Your task to perform on an android device: Show me popular games on the Play Store Image 0: 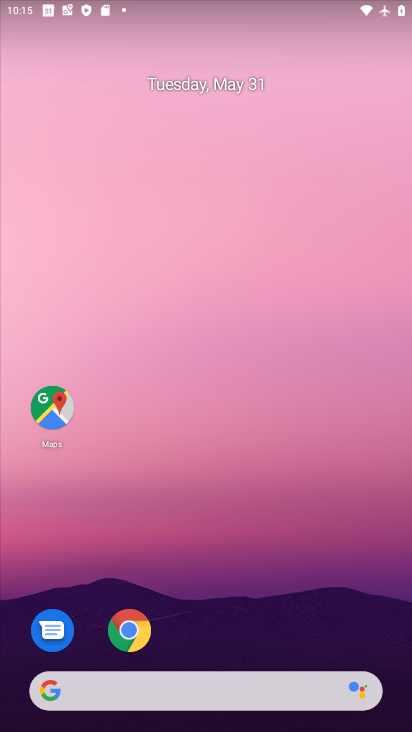
Step 0: drag from (254, 608) to (227, 240)
Your task to perform on an android device: Show me popular games on the Play Store Image 1: 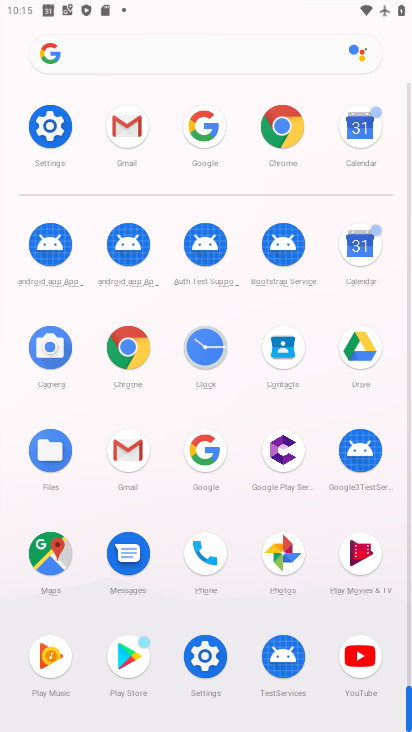
Step 1: drag from (285, 545) to (149, 624)
Your task to perform on an android device: Show me popular games on the Play Store Image 2: 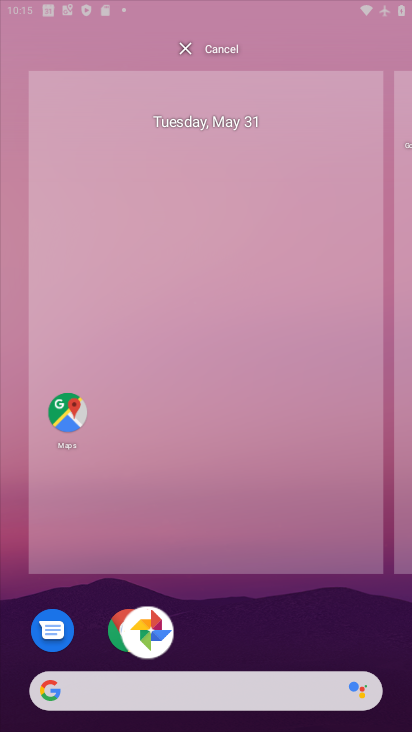
Step 2: click (145, 616)
Your task to perform on an android device: Show me popular games on the Play Store Image 3: 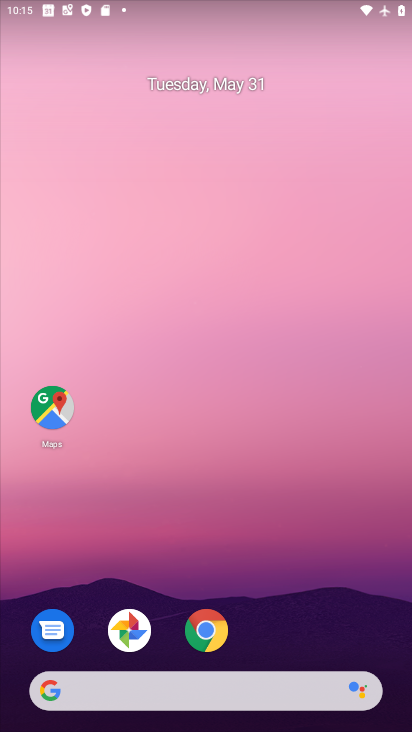
Step 3: drag from (230, 628) to (225, 33)
Your task to perform on an android device: Show me popular games on the Play Store Image 4: 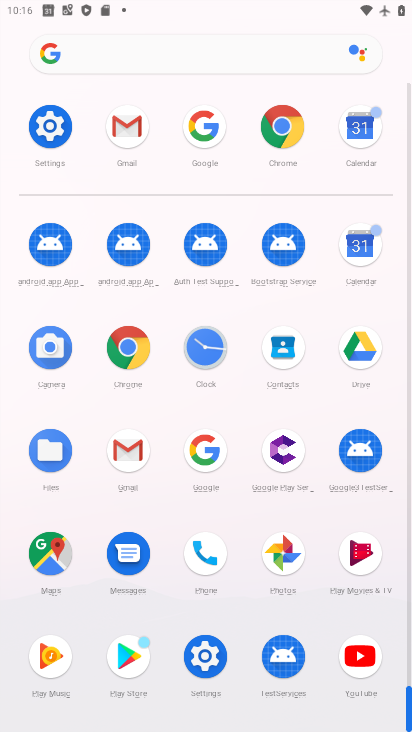
Step 4: click (117, 657)
Your task to perform on an android device: Show me popular games on the Play Store Image 5: 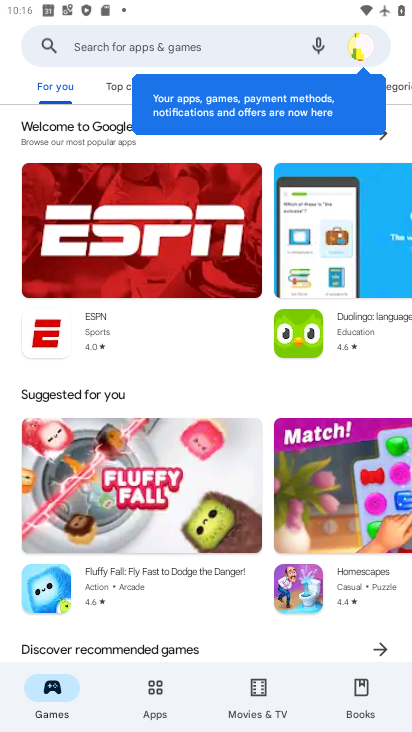
Step 5: task complete